Your task to perform on an android device: check out phone information Image 0: 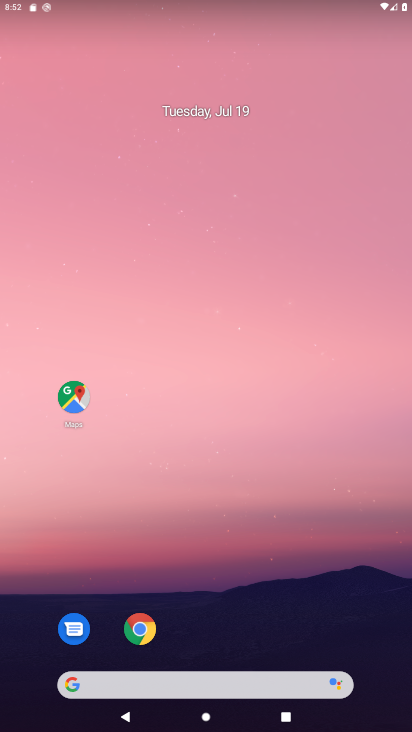
Step 0: drag from (187, 521) to (131, 119)
Your task to perform on an android device: check out phone information Image 1: 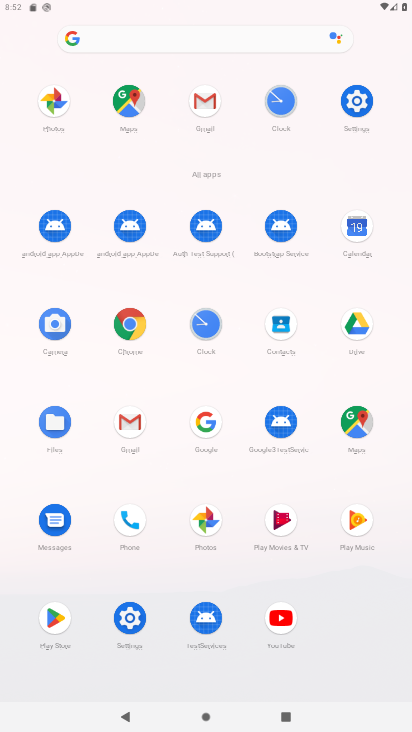
Step 1: click (359, 100)
Your task to perform on an android device: check out phone information Image 2: 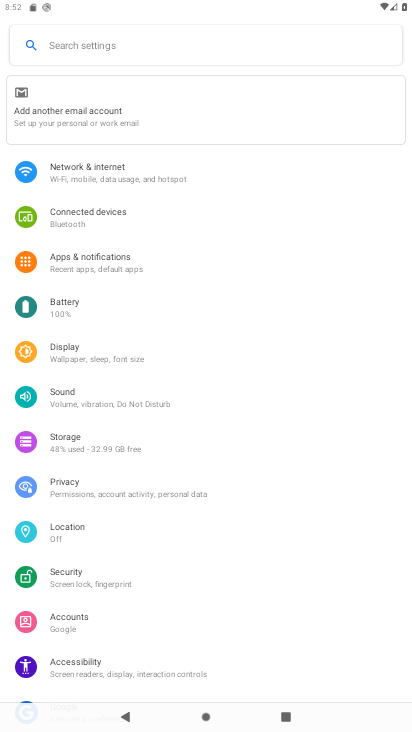
Step 2: task complete